Your task to perform on an android device: toggle airplane mode Image 0: 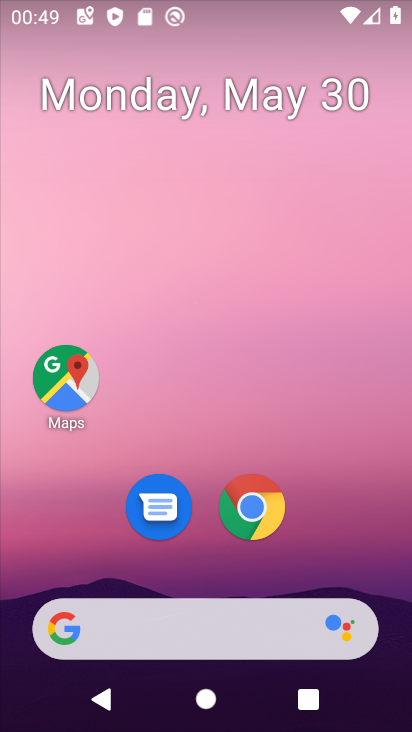
Step 0: drag from (319, 549) to (288, 179)
Your task to perform on an android device: toggle airplane mode Image 1: 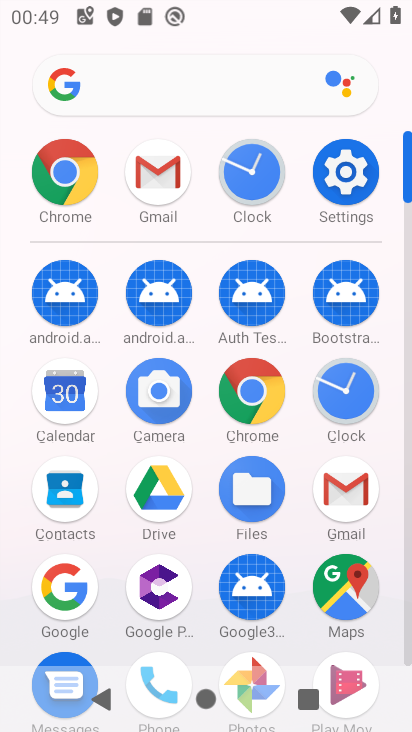
Step 1: click (343, 169)
Your task to perform on an android device: toggle airplane mode Image 2: 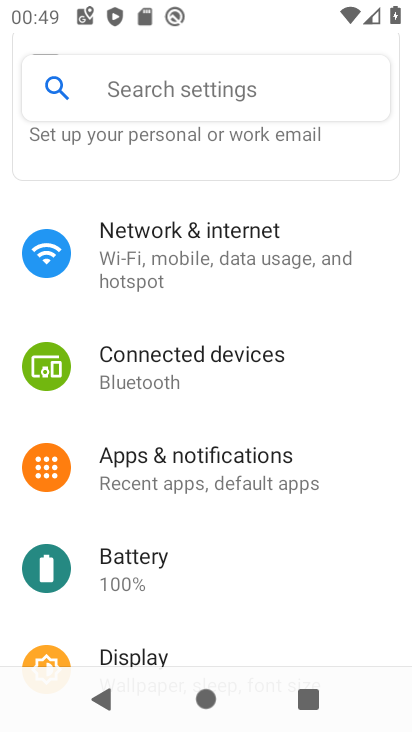
Step 2: click (180, 253)
Your task to perform on an android device: toggle airplane mode Image 3: 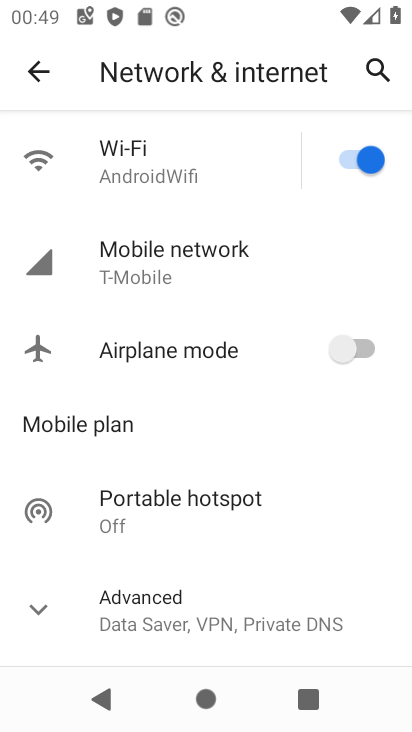
Step 3: click (180, 252)
Your task to perform on an android device: toggle airplane mode Image 4: 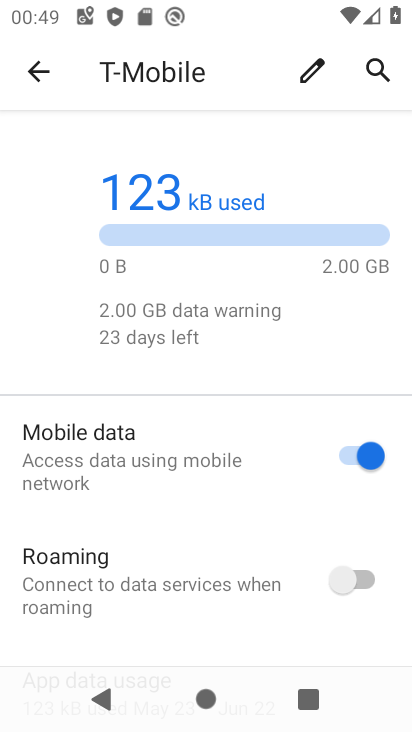
Step 4: click (46, 73)
Your task to perform on an android device: toggle airplane mode Image 5: 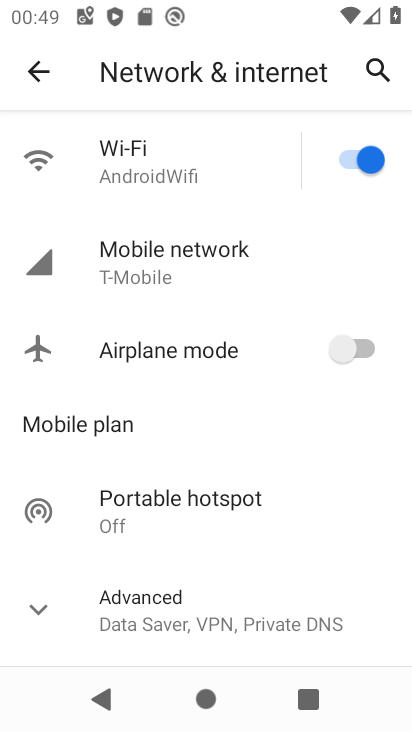
Step 5: click (347, 351)
Your task to perform on an android device: toggle airplane mode Image 6: 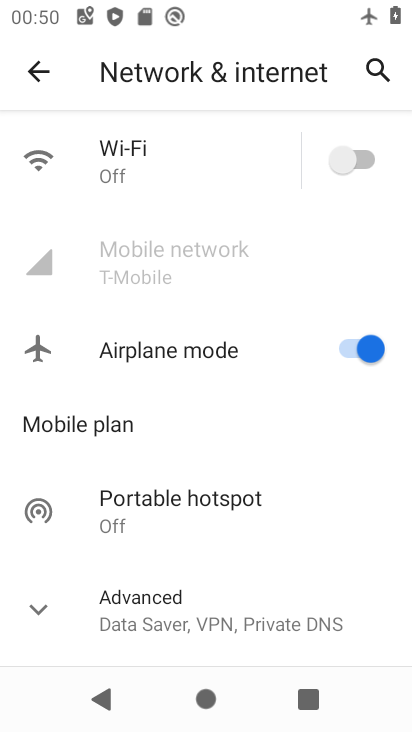
Step 6: task complete